Your task to perform on an android device: turn on improve location accuracy Image 0: 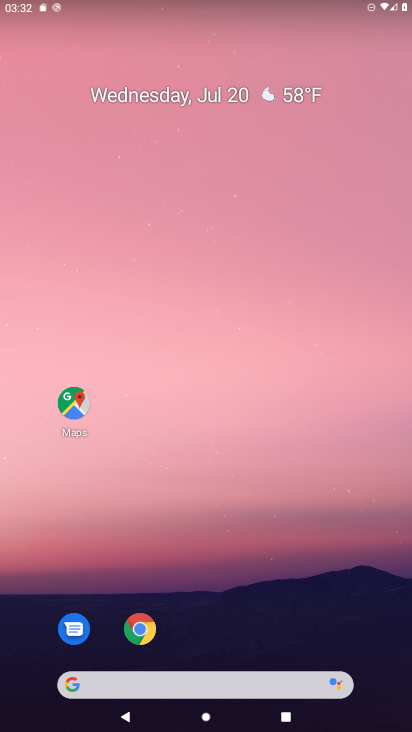
Step 0: drag from (263, 429) to (295, 73)
Your task to perform on an android device: turn on improve location accuracy Image 1: 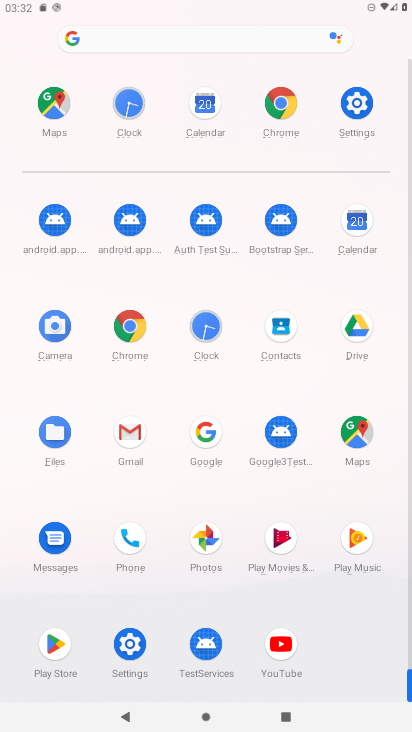
Step 1: click (126, 644)
Your task to perform on an android device: turn on improve location accuracy Image 2: 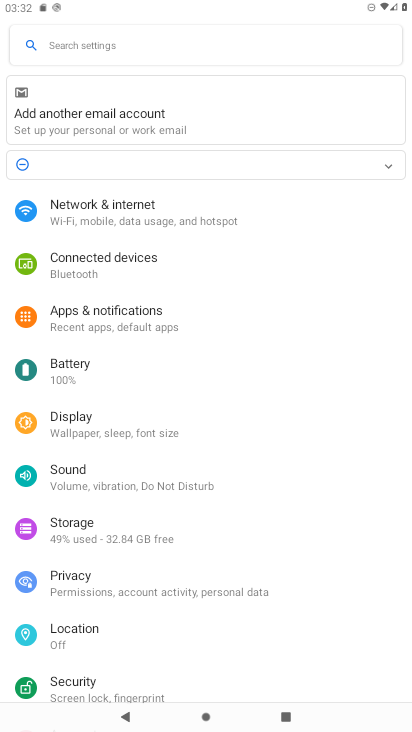
Step 2: click (62, 630)
Your task to perform on an android device: turn on improve location accuracy Image 3: 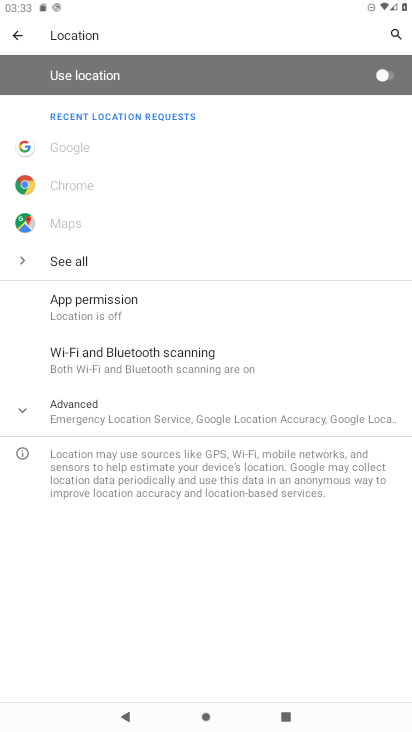
Step 3: click (69, 406)
Your task to perform on an android device: turn on improve location accuracy Image 4: 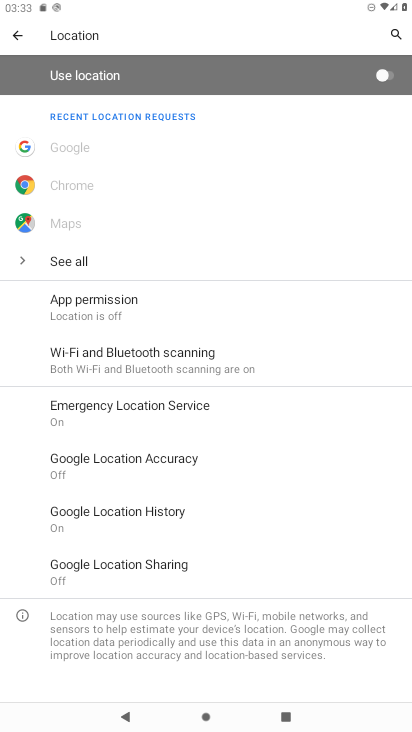
Step 4: click (168, 459)
Your task to perform on an android device: turn on improve location accuracy Image 5: 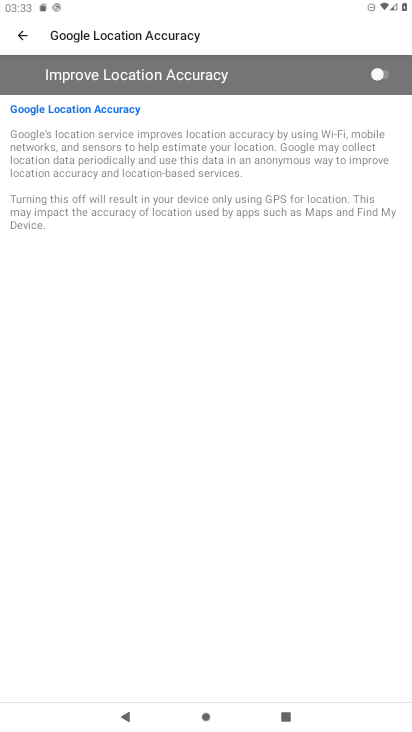
Step 5: click (278, 78)
Your task to perform on an android device: turn on improve location accuracy Image 6: 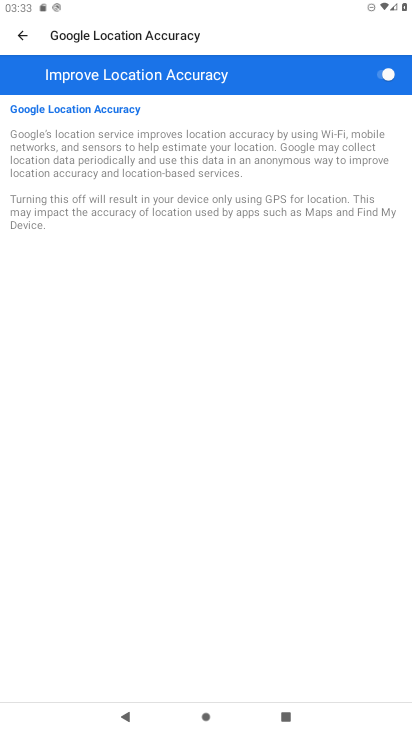
Step 6: task complete